Your task to perform on an android device: Open maps Image 0: 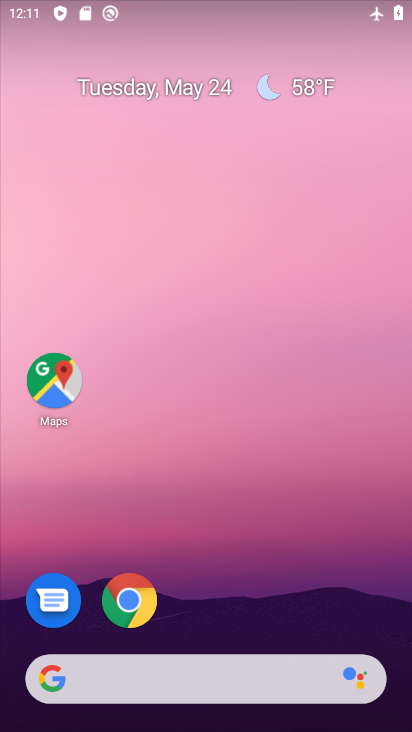
Step 0: click (56, 379)
Your task to perform on an android device: Open maps Image 1: 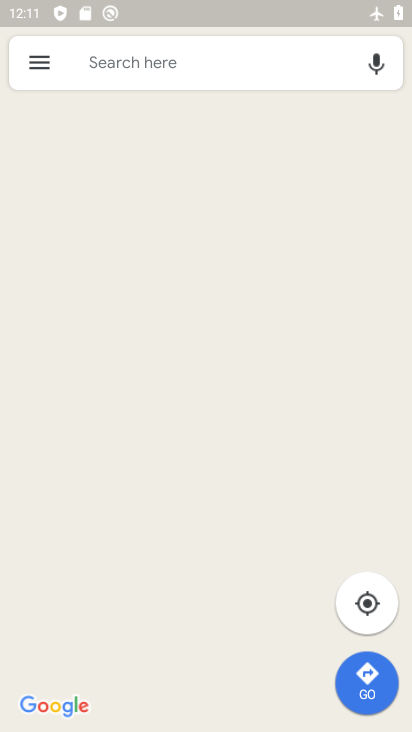
Step 1: task complete